Your task to perform on an android device: change the clock display to digital Image 0: 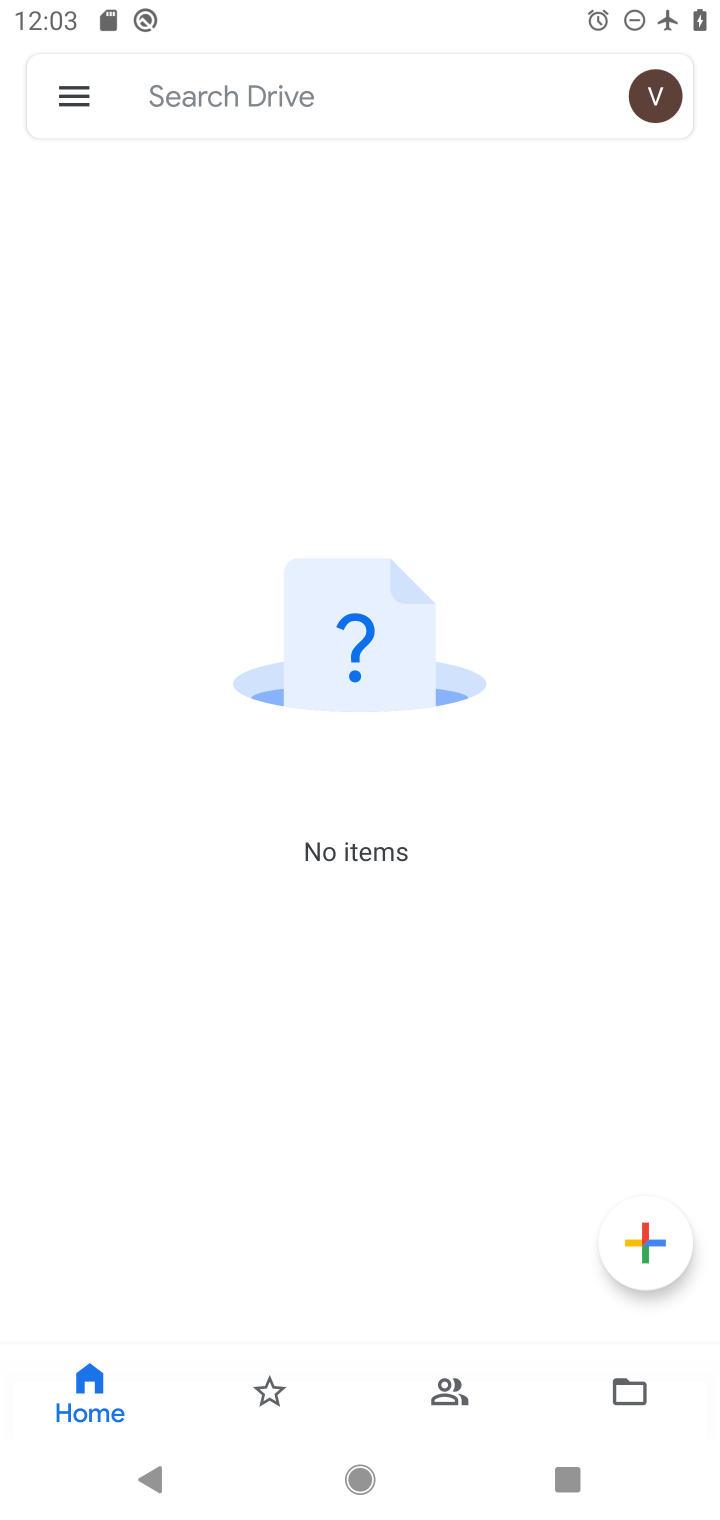
Step 0: press back button
Your task to perform on an android device: change the clock display to digital Image 1: 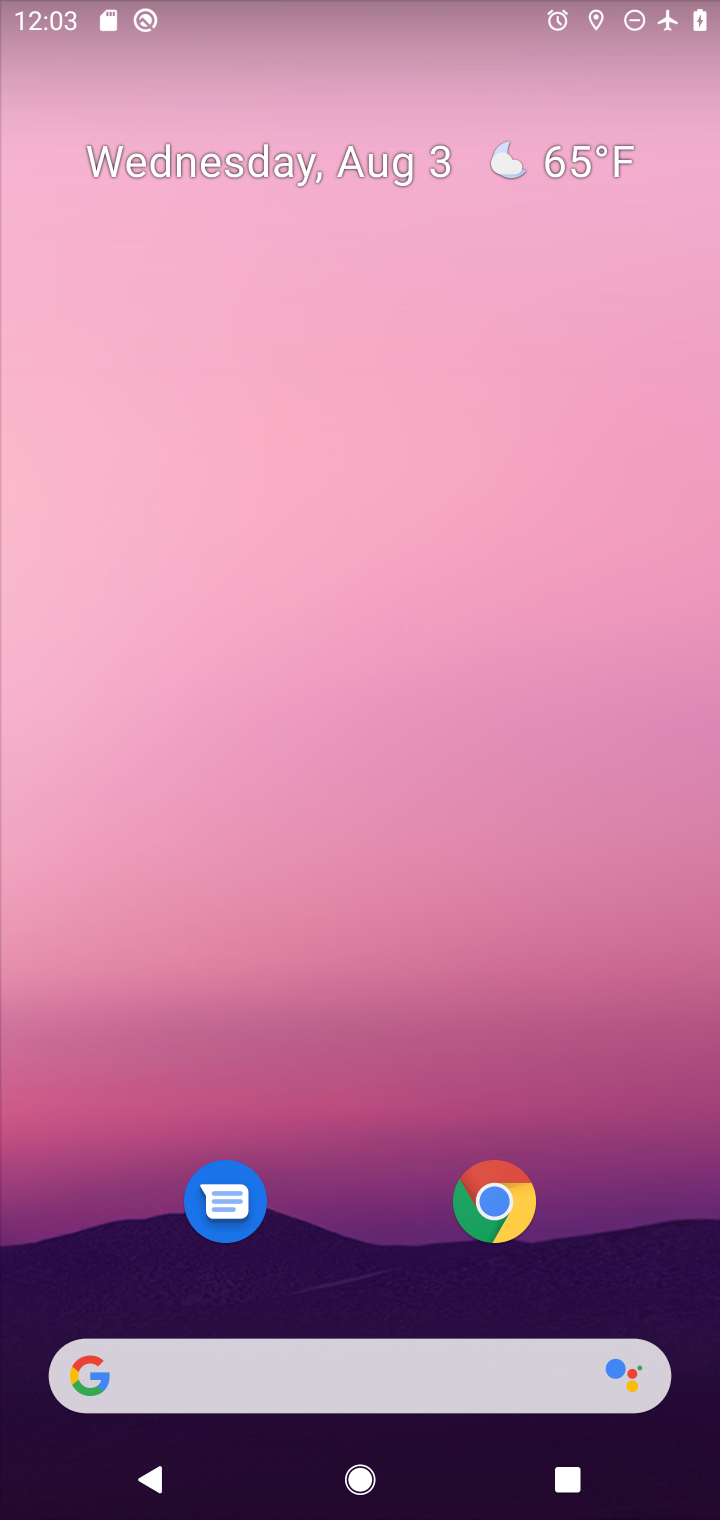
Step 1: drag from (395, 1263) to (565, 7)
Your task to perform on an android device: change the clock display to digital Image 2: 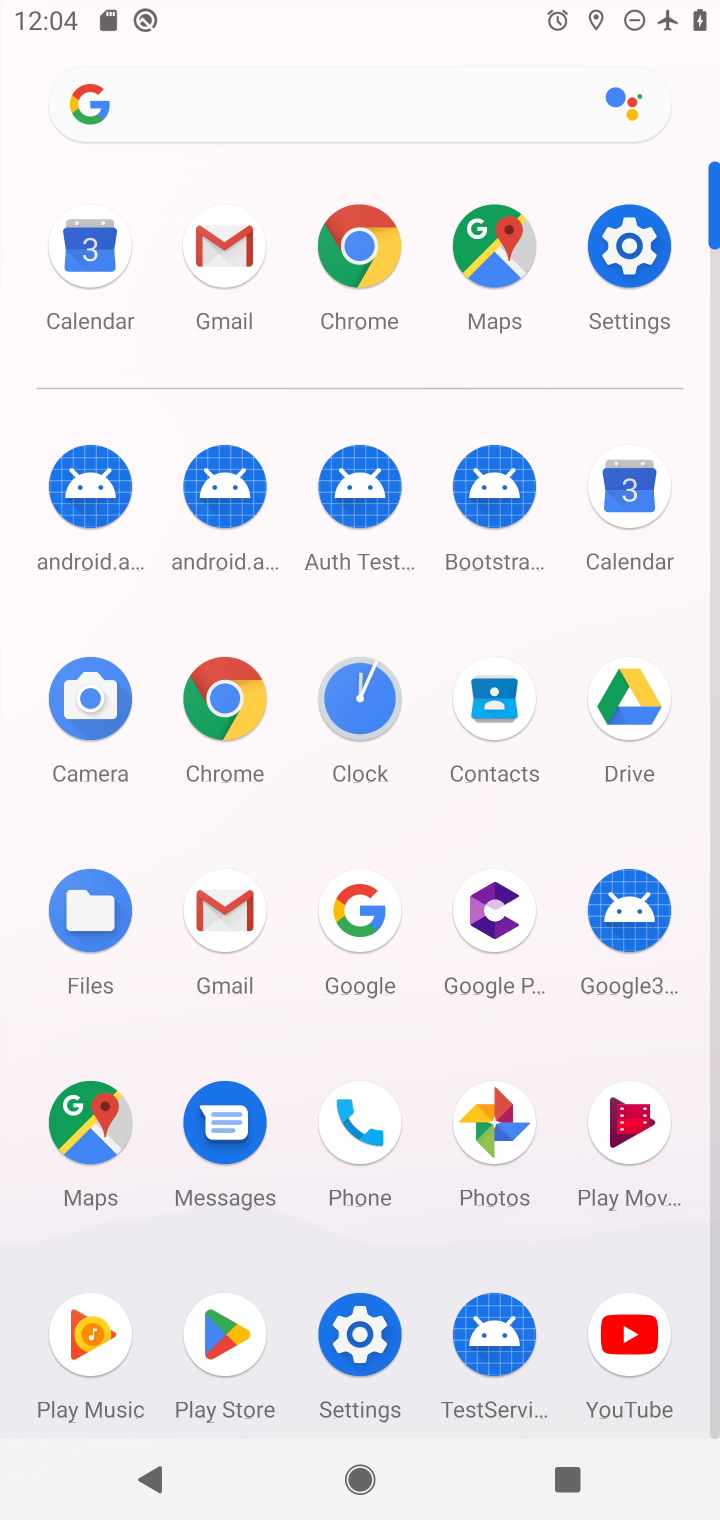
Step 2: click (324, 747)
Your task to perform on an android device: change the clock display to digital Image 3: 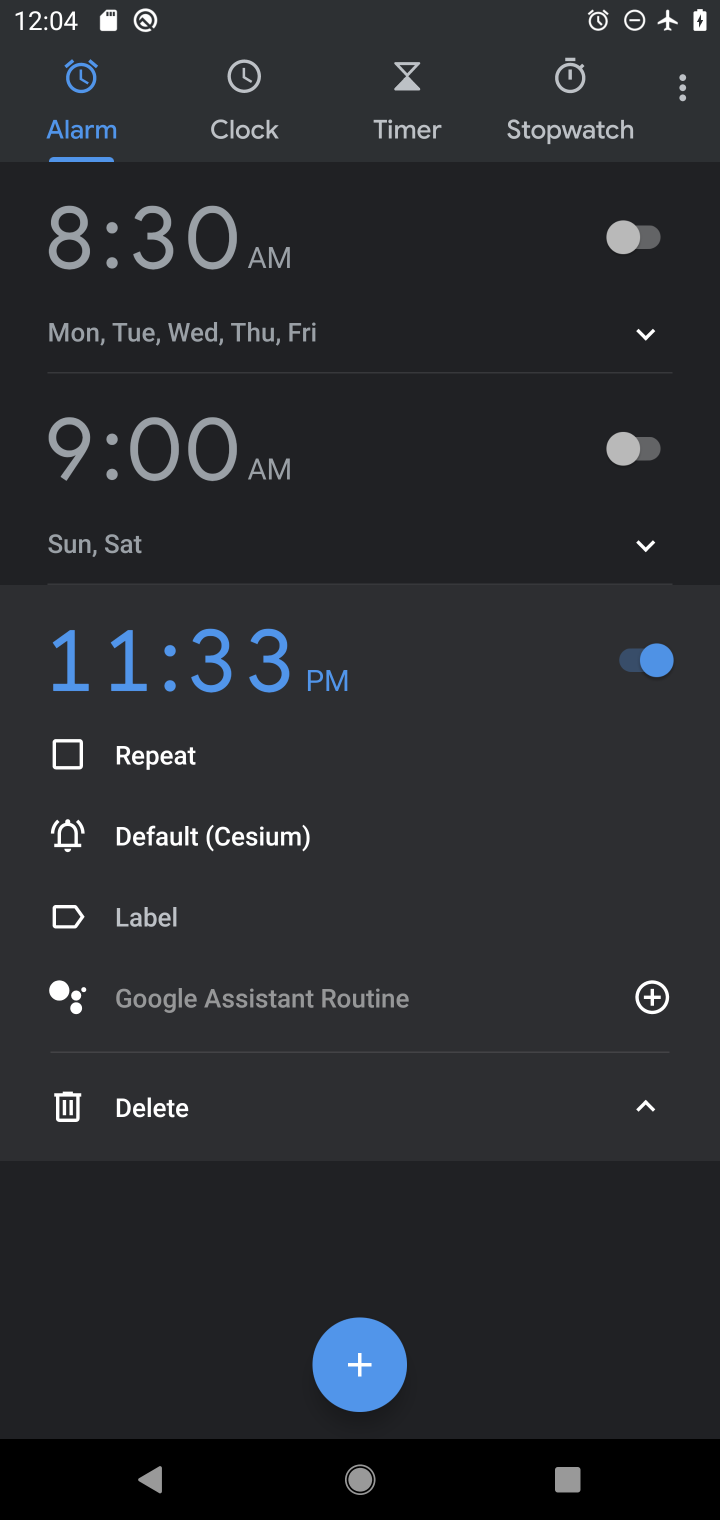
Step 3: click (705, 99)
Your task to perform on an android device: change the clock display to digital Image 4: 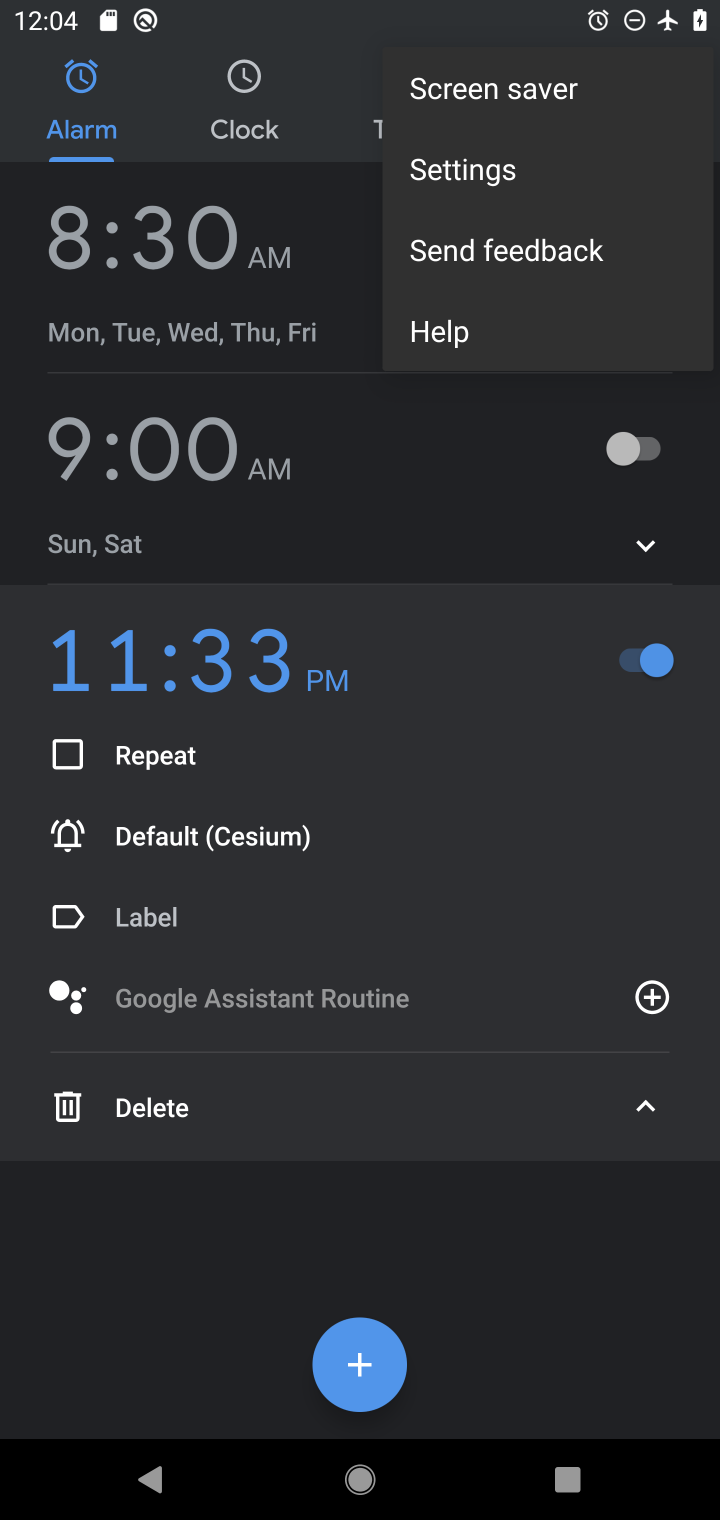
Step 4: click (496, 177)
Your task to perform on an android device: change the clock display to digital Image 5: 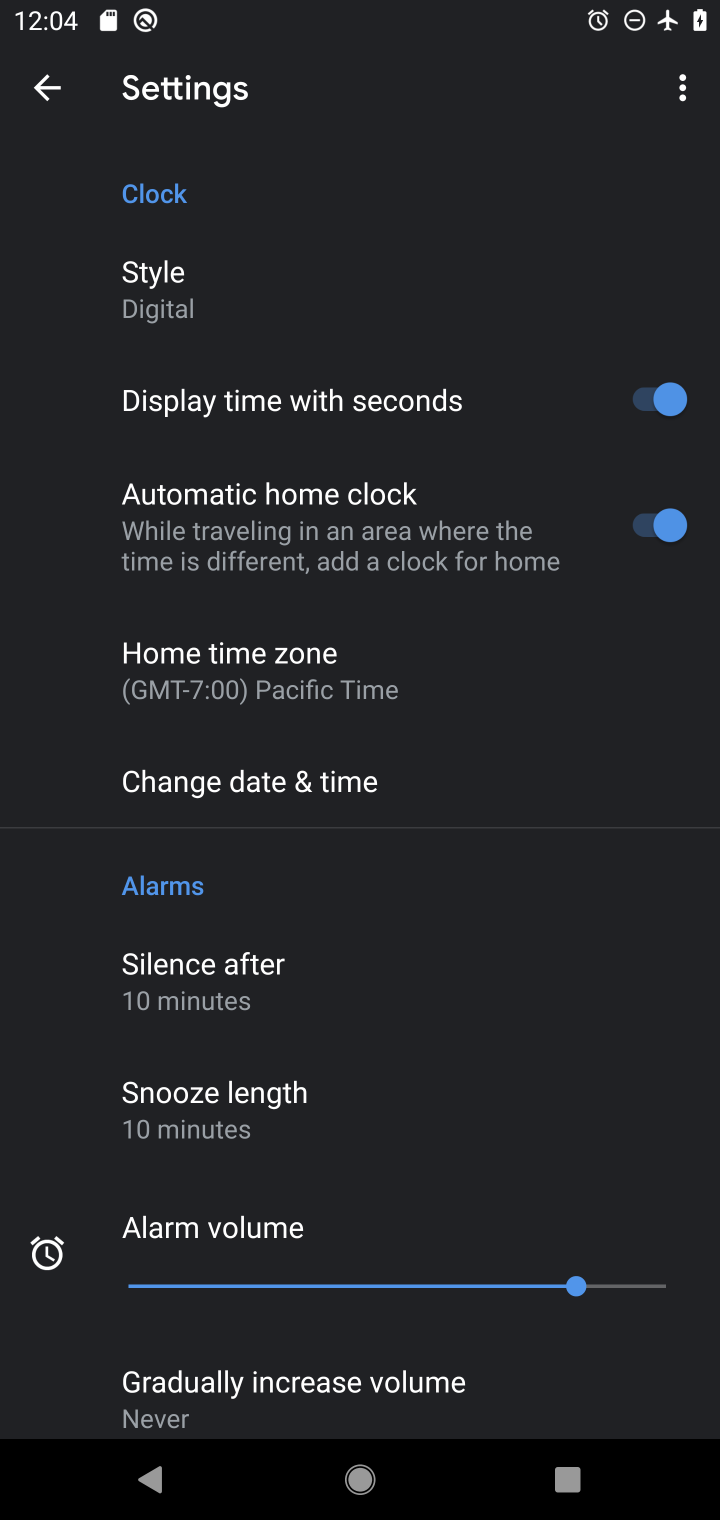
Step 5: click (253, 316)
Your task to perform on an android device: change the clock display to digital Image 6: 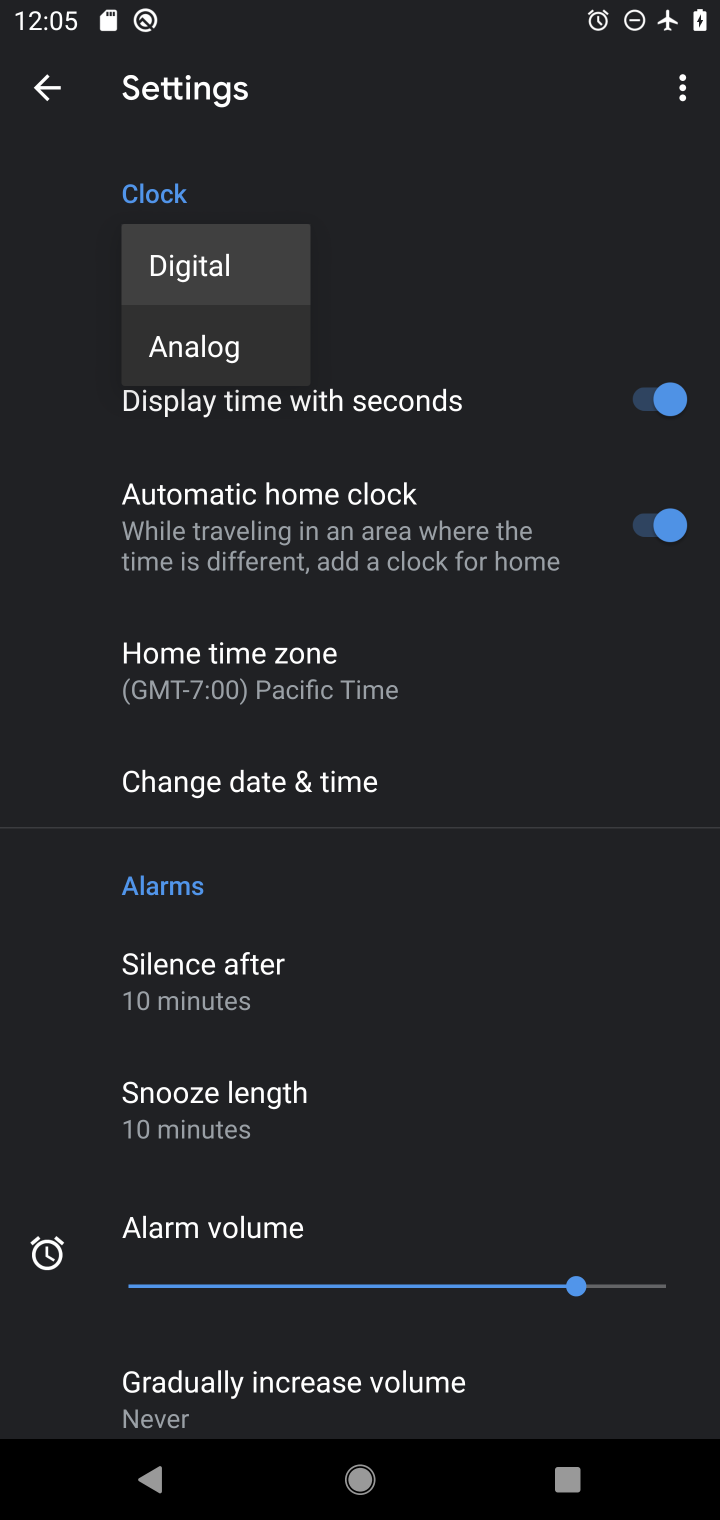
Step 6: click (249, 273)
Your task to perform on an android device: change the clock display to digital Image 7: 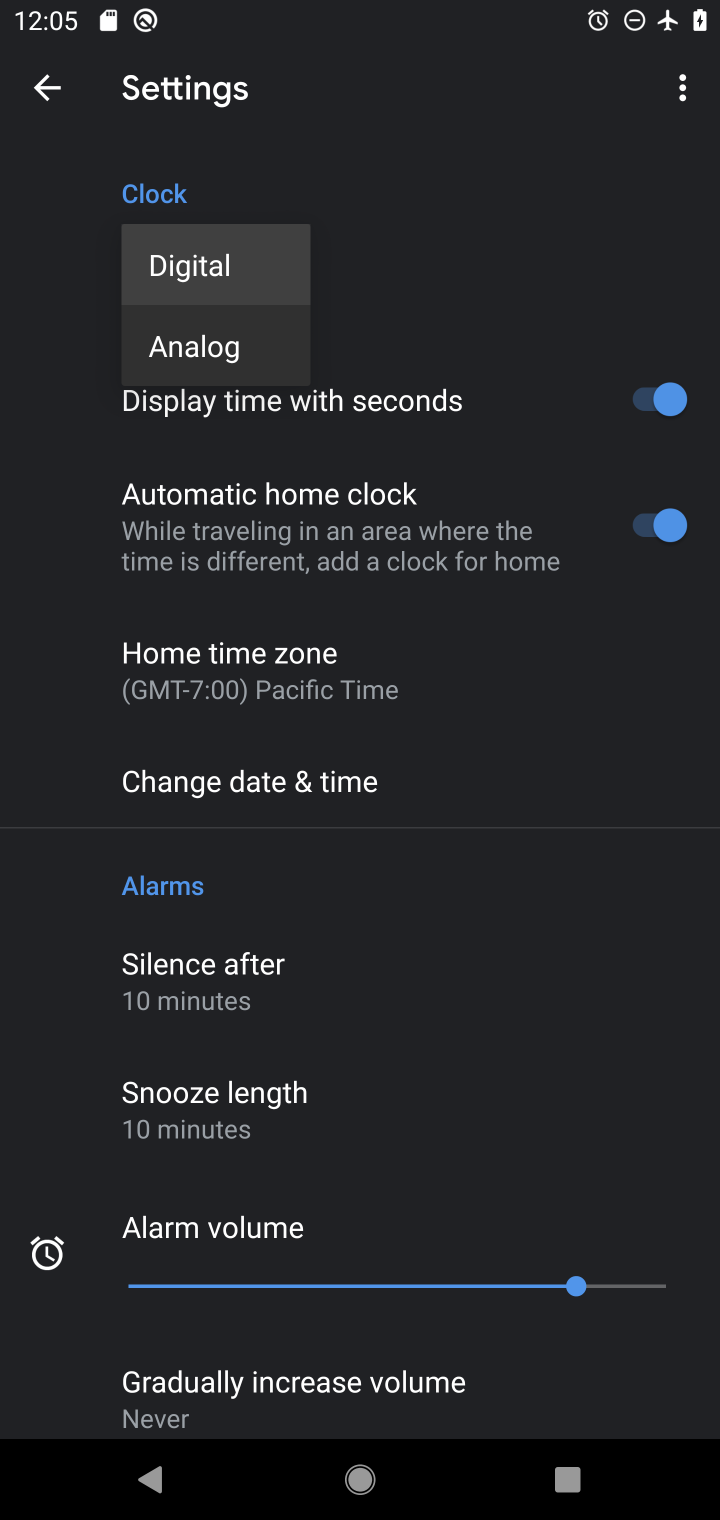
Step 7: click (249, 273)
Your task to perform on an android device: change the clock display to digital Image 8: 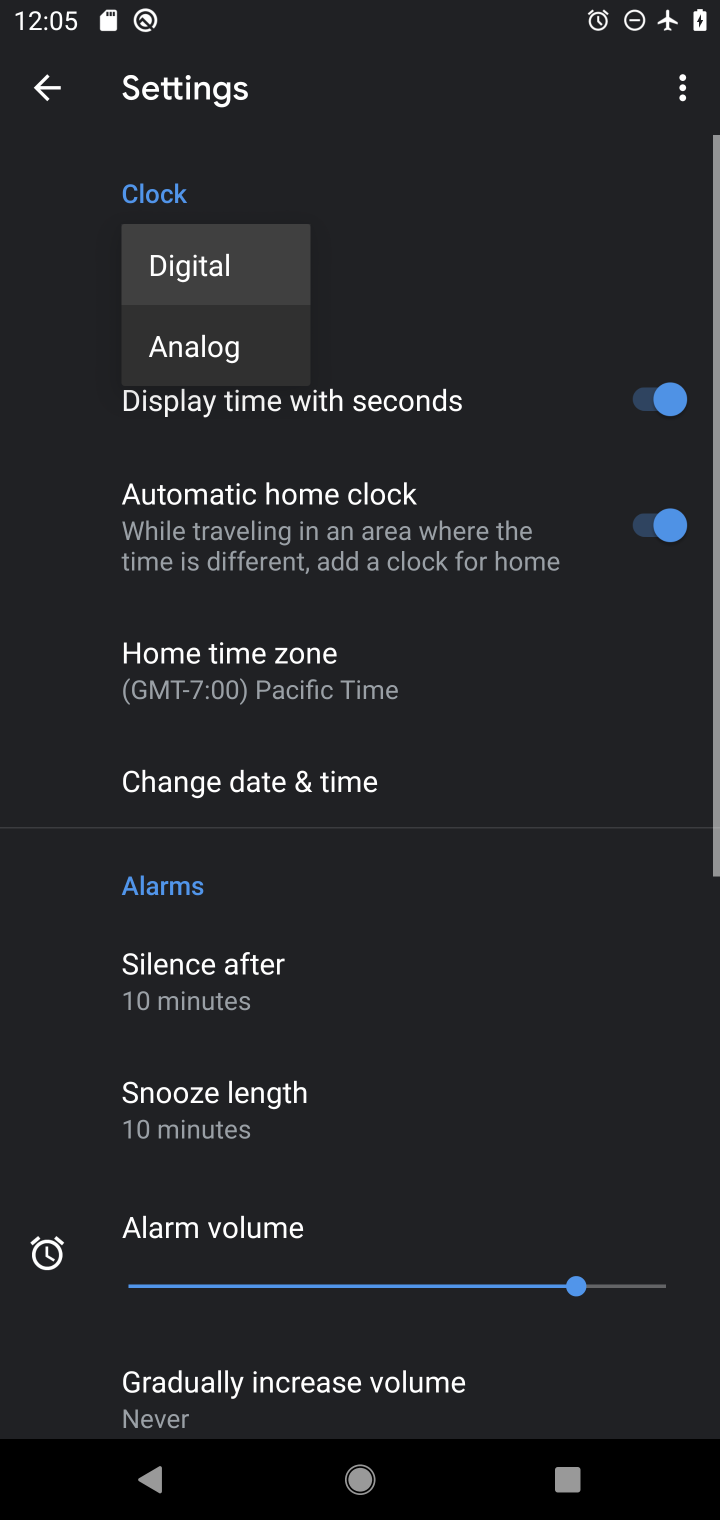
Step 8: task complete